Your task to perform on an android device: Search for "jbl charge 4" on amazon.com, select the first entry, and add it to the cart. Image 0: 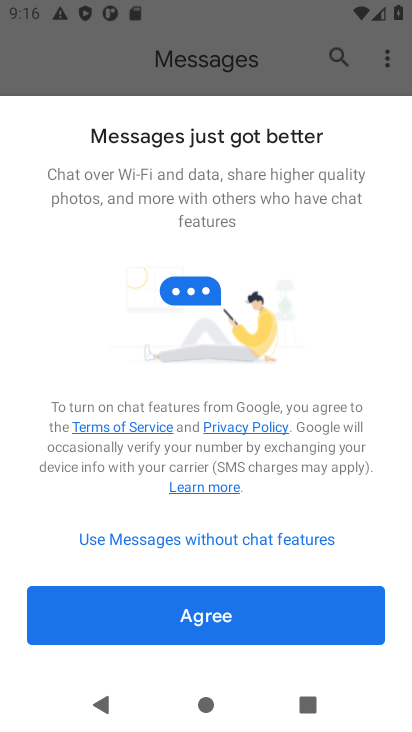
Step 0: click (207, 613)
Your task to perform on an android device: Search for "jbl charge 4" on amazon.com, select the first entry, and add it to the cart. Image 1: 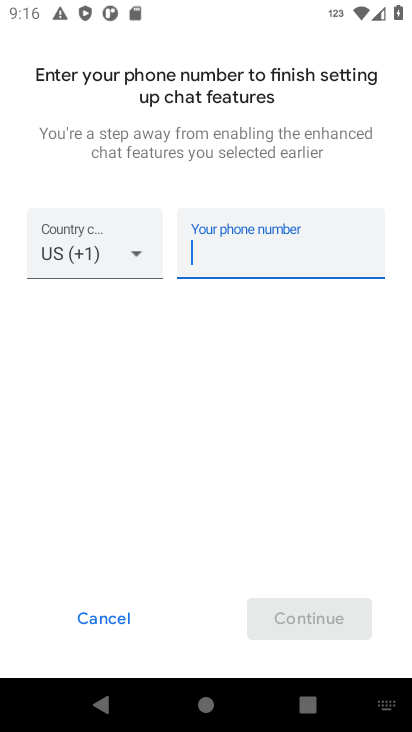
Step 1: press home button
Your task to perform on an android device: Search for "jbl charge 4" on amazon.com, select the first entry, and add it to the cart. Image 2: 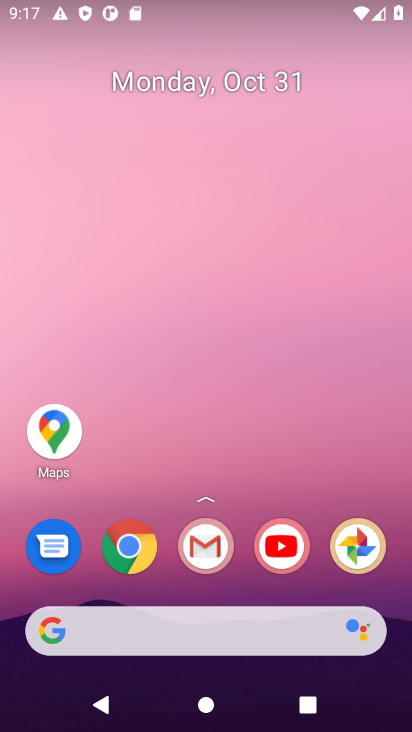
Step 2: click (137, 553)
Your task to perform on an android device: Search for "jbl charge 4" on amazon.com, select the first entry, and add it to the cart. Image 3: 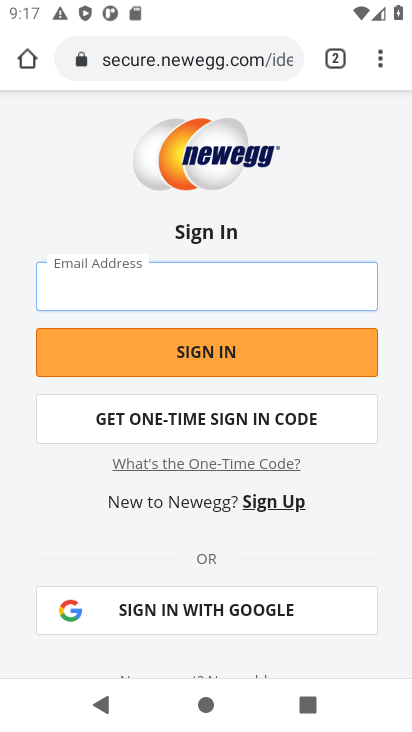
Step 3: click (141, 63)
Your task to perform on an android device: Search for "jbl charge 4" on amazon.com, select the first entry, and add it to the cart. Image 4: 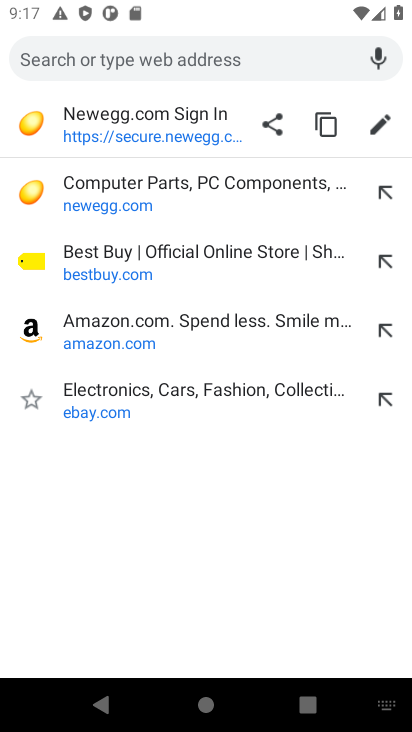
Step 4: type "amazon.com"
Your task to perform on an android device: Search for "jbl charge 4" on amazon.com, select the first entry, and add it to the cart. Image 5: 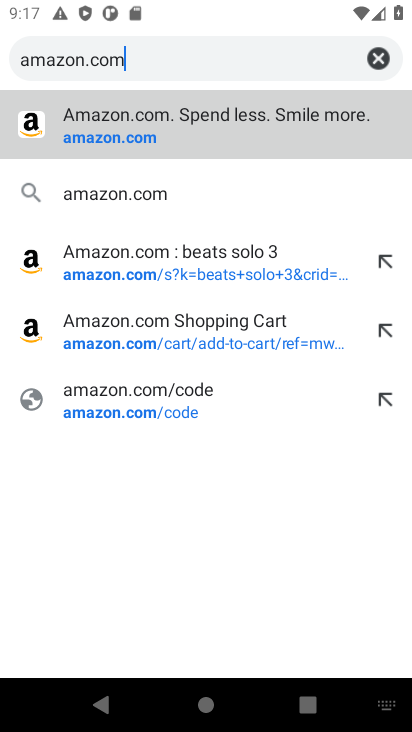
Step 5: press enter
Your task to perform on an android device: Search for "jbl charge 4" on amazon.com, select the first entry, and add it to the cart. Image 6: 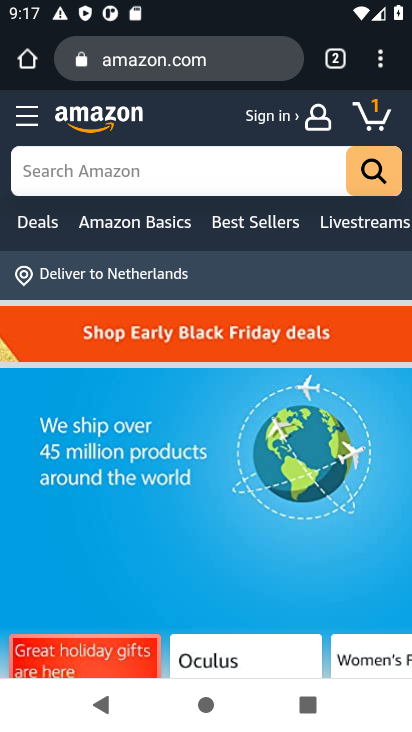
Step 6: click (133, 182)
Your task to perform on an android device: Search for "jbl charge 4" on amazon.com, select the first entry, and add it to the cart. Image 7: 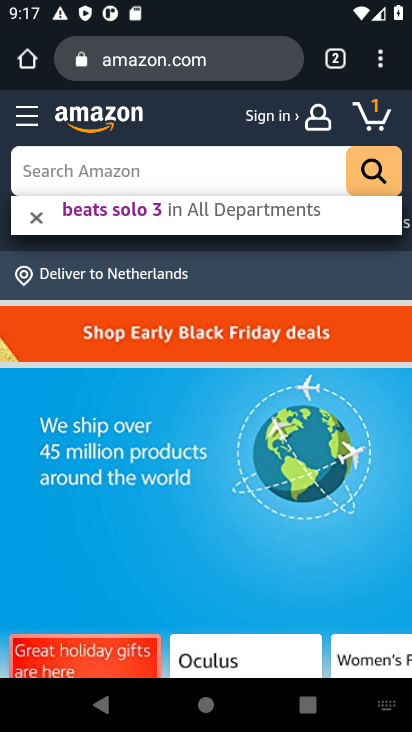
Step 7: type "jbl charge 4"
Your task to perform on an android device: Search for "jbl charge 4" on amazon.com, select the first entry, and add it to the cart. Image 8: 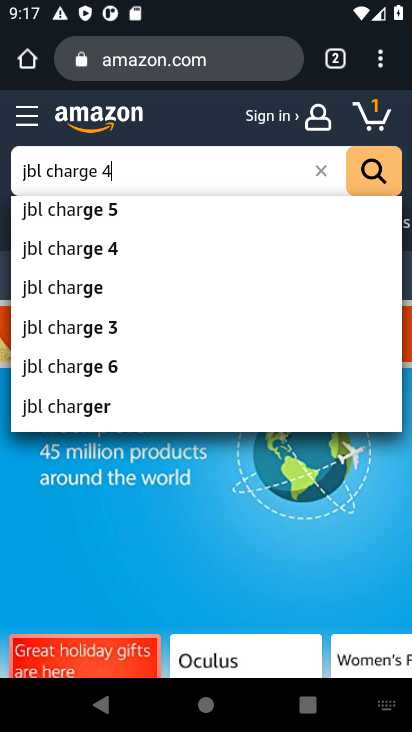
Step 8: press enter
Your task to perform on an android device: Search for "jbl charge 4" on amazon.com, select the first entry, and add it to the cart. Image 9: 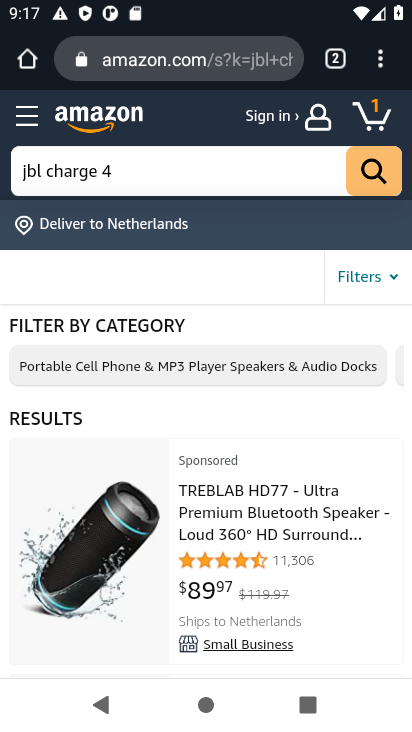
Step 9: drag from (292, 594) to (262, 227)
Your task to perform on an android device: Search for "jbl charge 4" on amazon.com, select the first entry, and add it to the cart. Image 10: 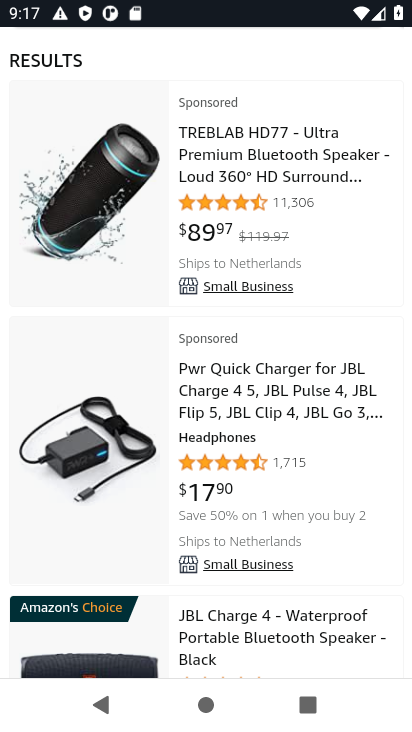
Step 10: click (221, 635)
Your task to perform on an android device: Search for "jbl charge 4" on amazon.com, select the first entry, and add it to the cart. Image 11: 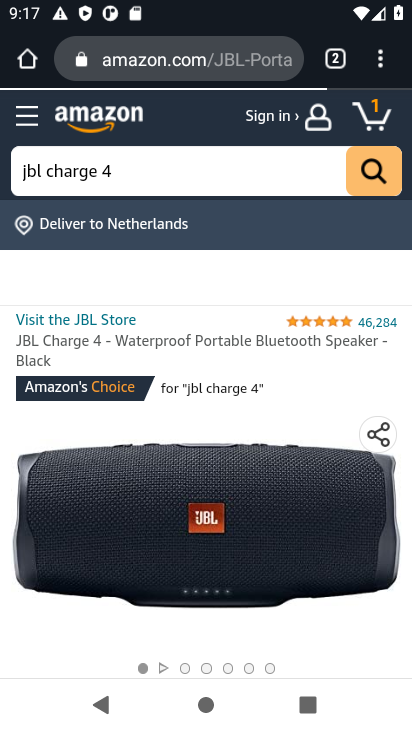
Step 11: task complete